Your task to perform on an android device: delete location history Image 0: 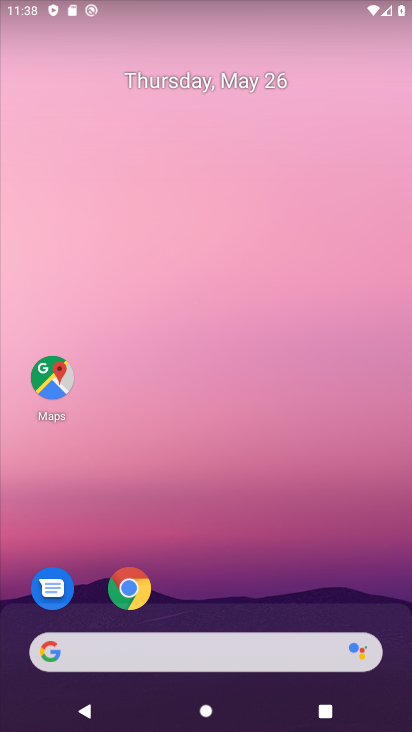
Step 0: click (289, 612)
Your task to perform on an android device: delete location history Image 1: 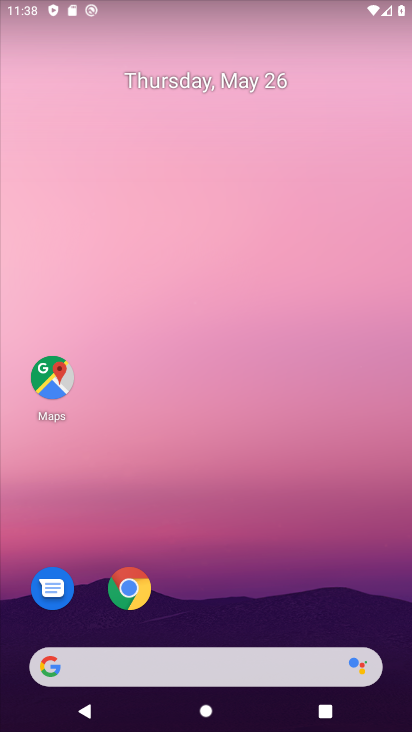
Step 1: click (59, 382)
Your task to perform on an android device: delete location history Image 2: 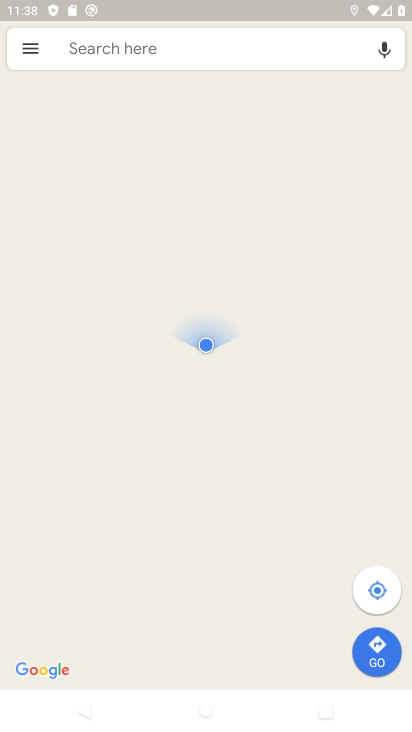
Step 2: click (25, 48)
Your task to perform on an android device: delete location history Image 3: 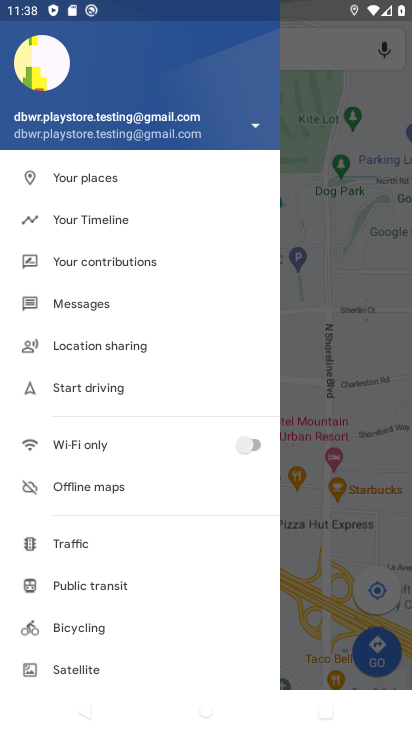
Step 3: click (107, 215)
Your task to perform on an android device: delete location history Image 4: 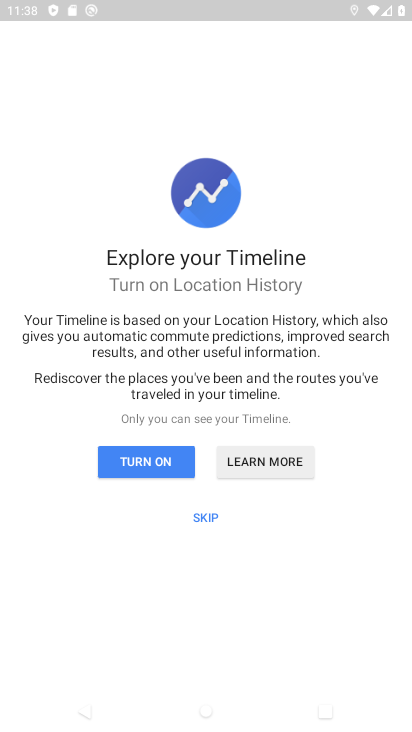
Step 4: click (198, 521)
Your task to perform on an android device: delete location history Image 5: 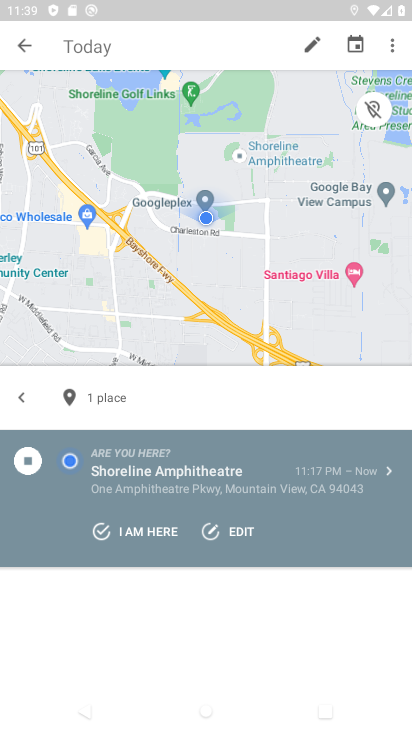
Step 5: click (392, 45)
Your task to perform on an android device: delete location history Image 6: 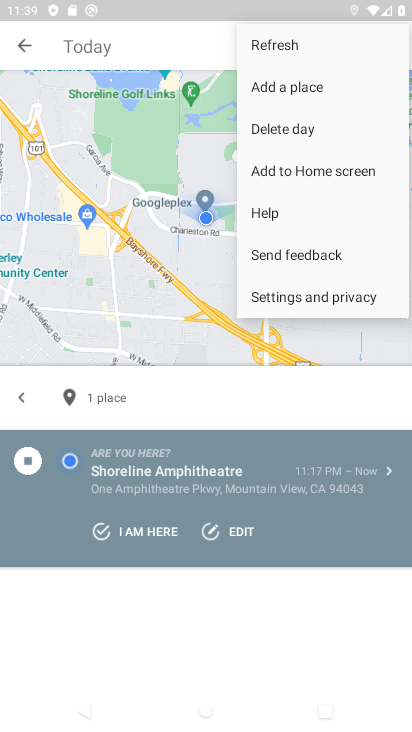
Step 6: click (319, 126)
Your task to perform on an android device: delete location history Image 7: 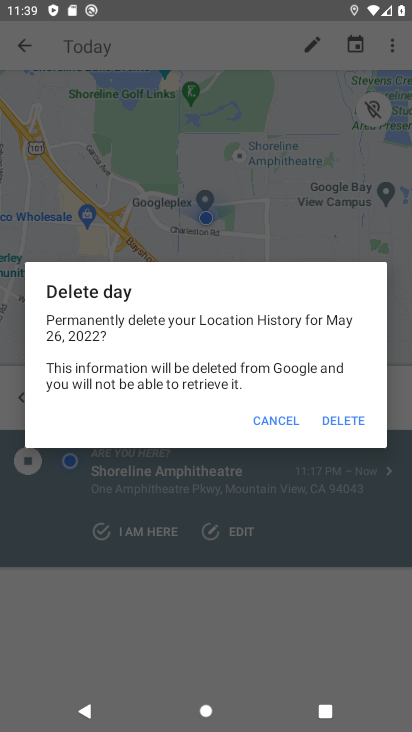
Step 7: click (337, 424)
Your task to perform on an android device: delete location history Image 8: 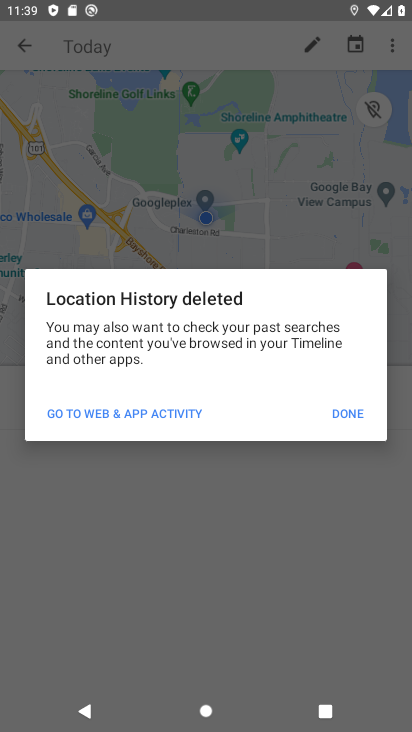
Step 8: task complete